Your task to perform on an android device: turn on the 12-hour format for clock Image 0: 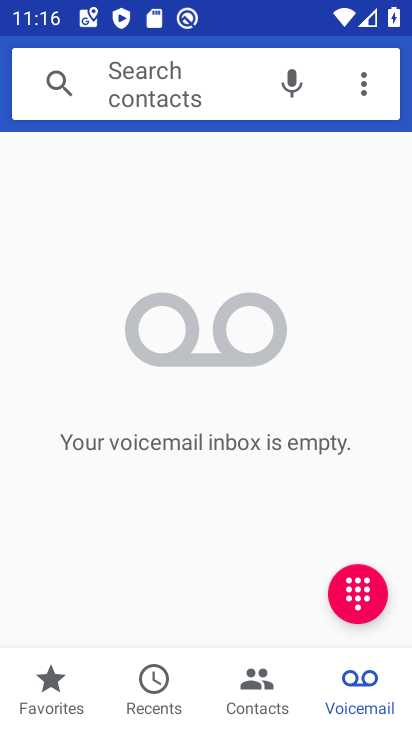
Step 0: press home button
Your task to perform on an android device: turn on the 12-hour format for clock Image 1: 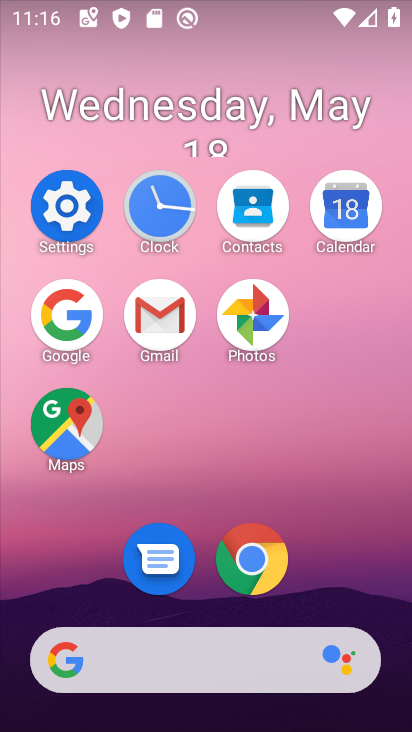
Step 1: click (183, 209)
Your task to perform on an android device: turn on the 12-hour format for clock Image 2: 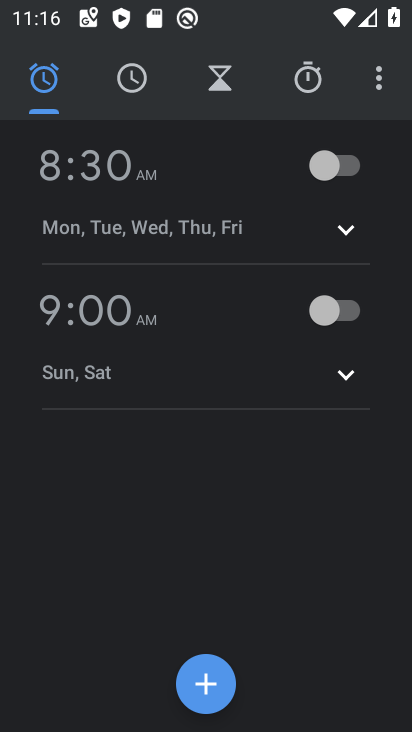
Step 2: click (374, 93)
Your task to perform on an android device: turn on the 12-hour format for clock Image 3: 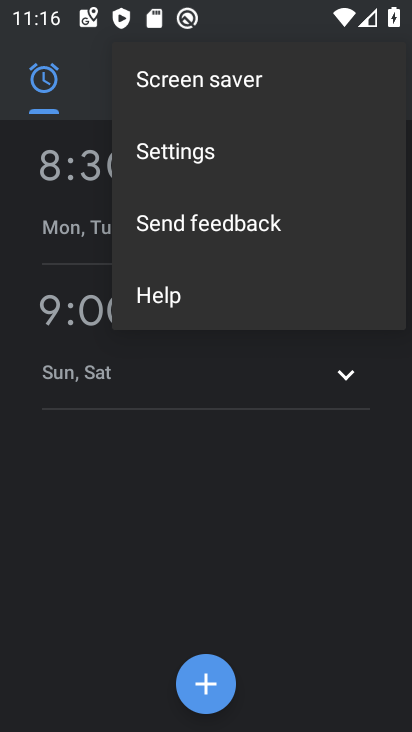
Step 3: click (254, 152)
Your task to perform on an android device: turn on the 12-hour format for clock Image 4: 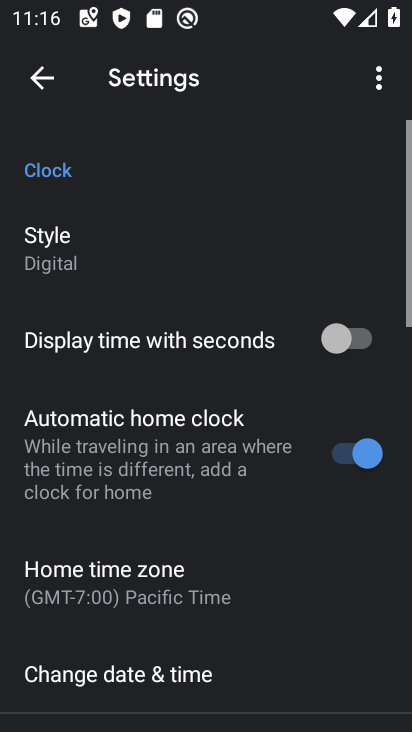
Step 4: drag from (211, 403) to (253, 127)
Your task to perform on an android device: turn on the 12-hour format for clock Image 5: 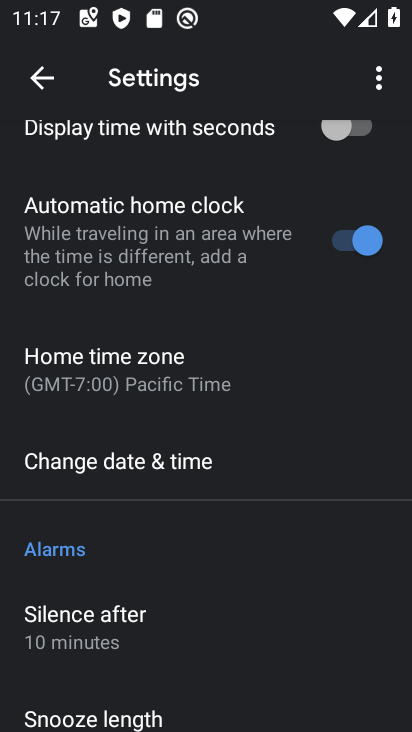
Step 5: click (241, 457)
Your task to perform on an android device: turn on the 12-hour format for clock Image 6: 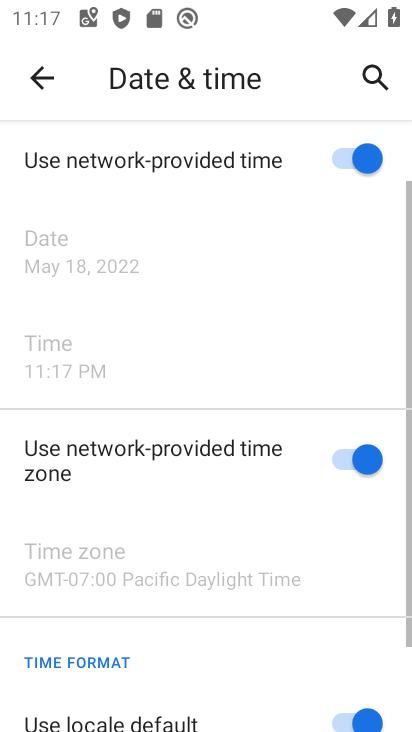
Step 6: task complete